Your task to perform on an android device: turn off sleep mode Image 0: 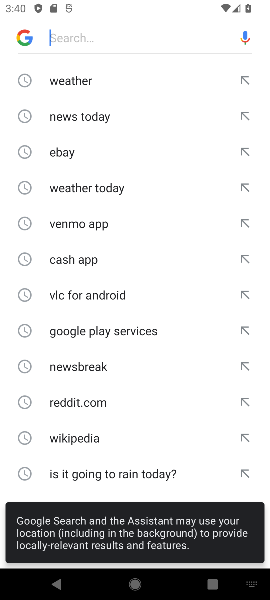
Step 0: press home button
Your task to perform on an android device: turn off sleep mode Image 1: 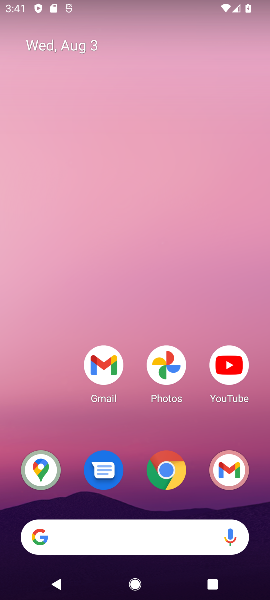
Step 1: drag from (188, 507) to (215, 133)
Your task to perform on an android device: turn off sleep mode Image 2: 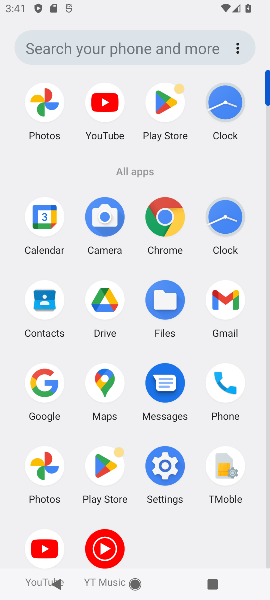
Step 2: click (170, 476)
Your task to perform on an android device: turn off sleep mode Image 3: 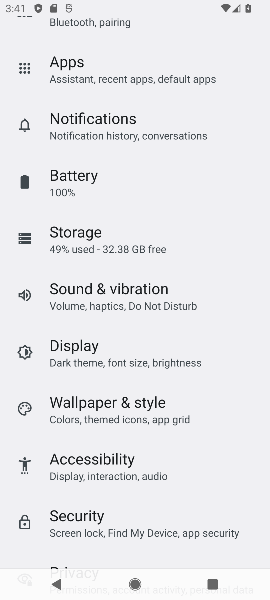
Step 3: click (106, 362)
Your task to perform on an android device: turn off sleep mode Image 4: 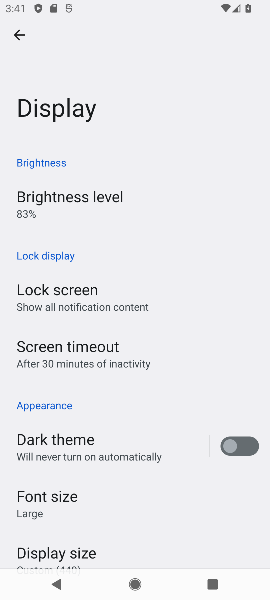
Step 4: drag from (128, 512) to (181, 173)
Your task to perform on an android device: turn off sleep mode Image 5: 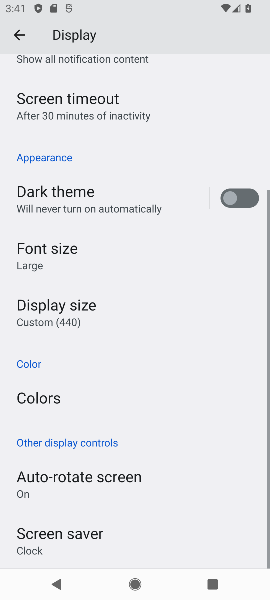
Step 5: click (162, 484)
Your task to perform on an android device: turn off sleep mode Image 6: 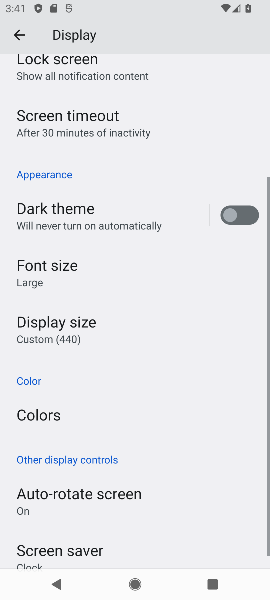
Step 6: task complete